Your task to perform on an android device: turn off notifications settings in the gmail app Image 0: 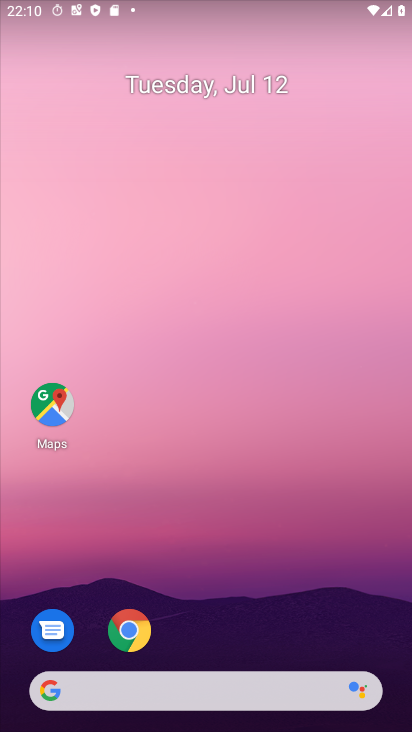
Step 0: drag from (263, 255) to (276, 17)
Your task to perform on an android device: turn off notifications settings in the gmail app Image 1: 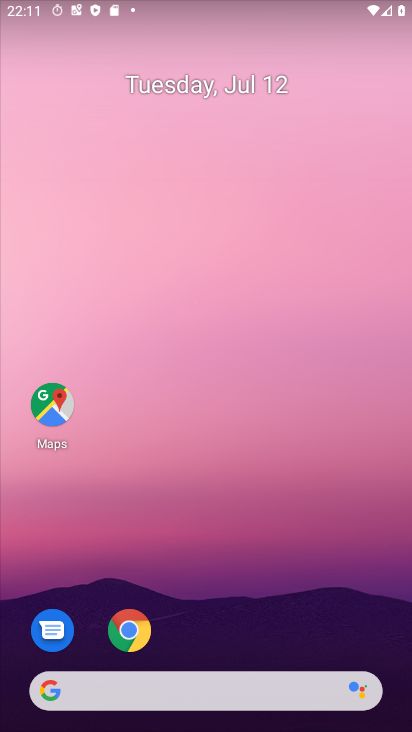
Step 1: drag from (251, 627) to (291, 53)
Your task to perform on an android device: turn off notifications settings in the gmail app Image 2: 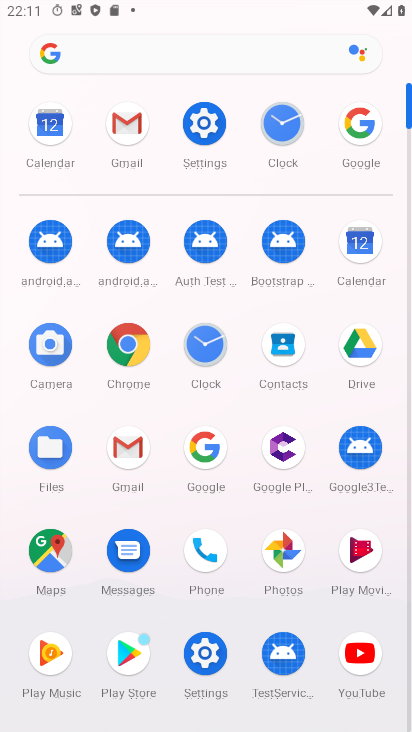
Step 2: click (125, 122)
Your task to perform on an android device: turn off notifications settings in the gmail app Image 3: 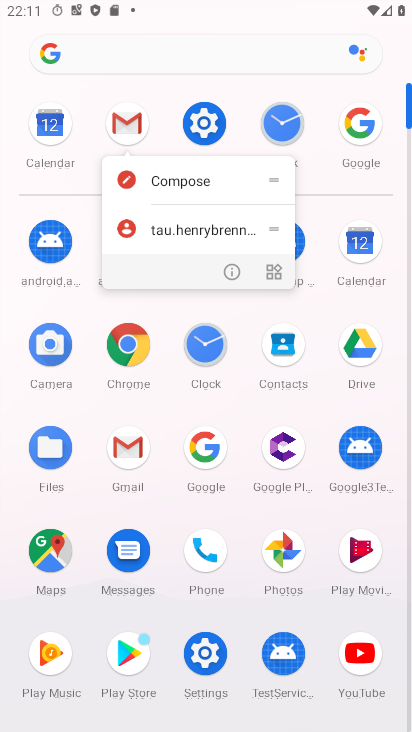
Step 3: click (233, 267)
Your task to perform on an android device: turn off notifications settings in the gmail app Image 4: 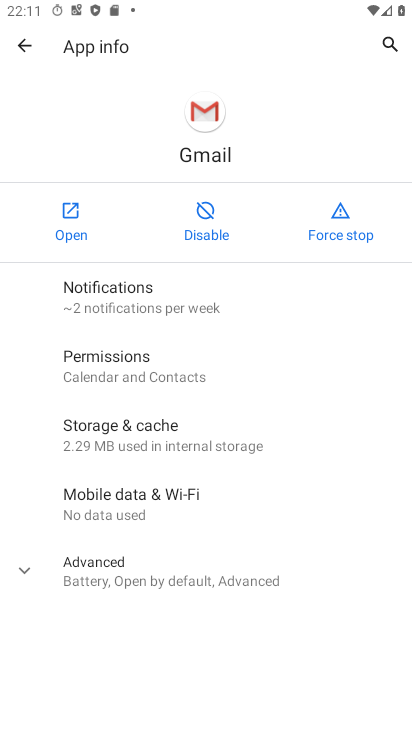
Step 4: click (169, 286)
Your task to perform on an android device: turn off notifications settings in the gmail app Image 5: 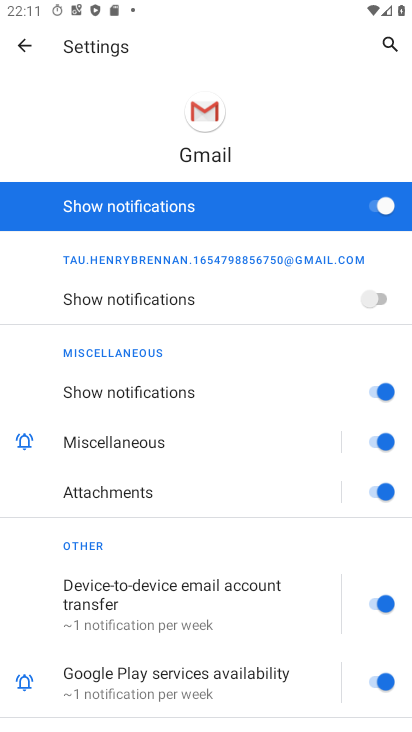
Step 5: click (383, 202)
Your task to perform on an android device: turn off notifications settings in the gmail app Image 6: 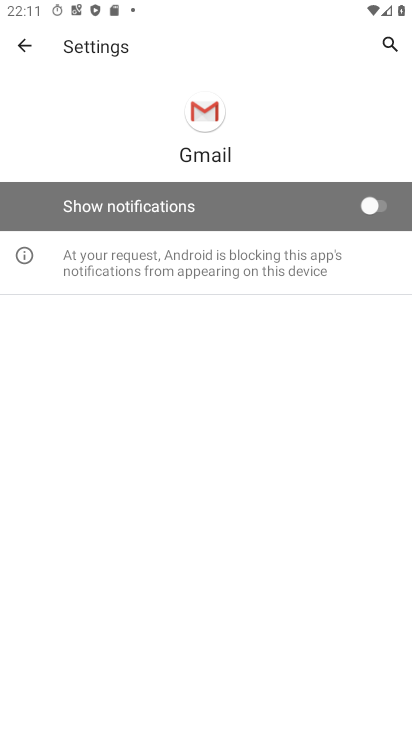
Step 6: task complete